Your task to perform on an android device: turn on showing notifications on the lock screen Image 0: 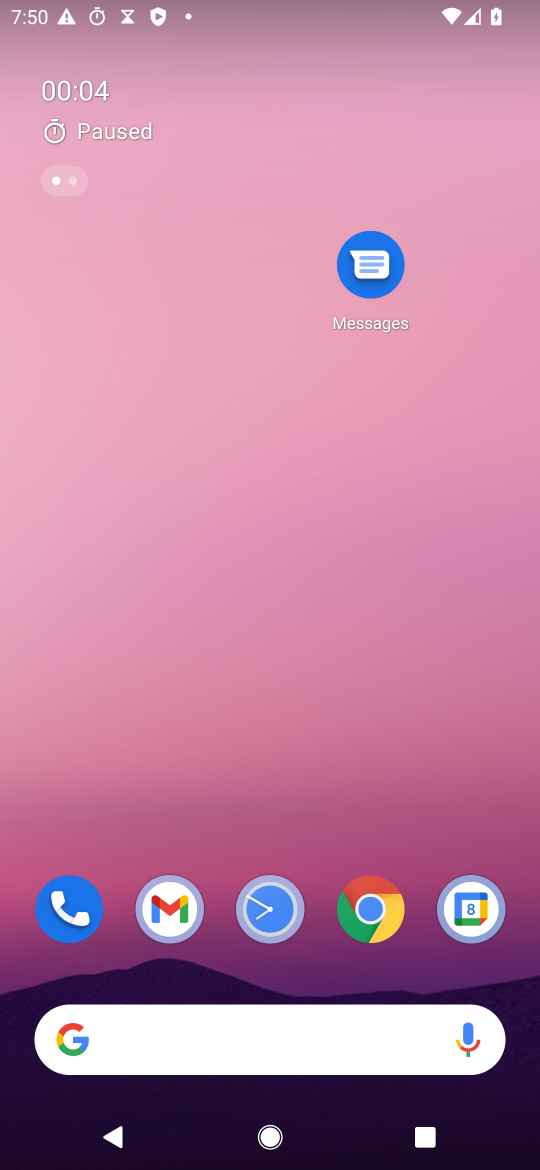
Step 0: press home button
Your task to perform on an android device: turn on showing notifications on the lock screen Image 1: 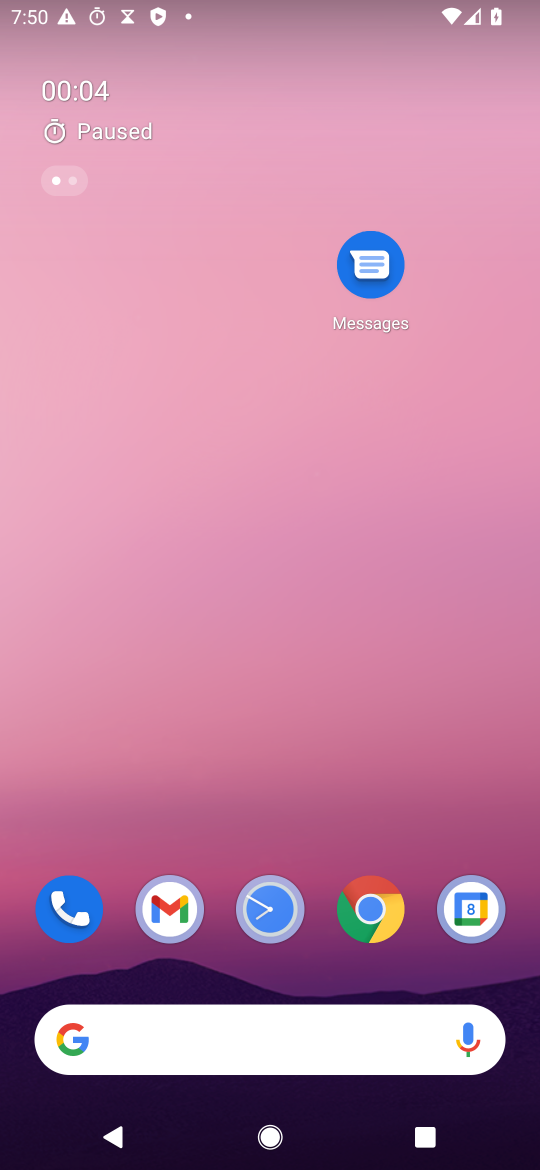
Step 1: drag from (225, 1040) to (343, 242)
Your task to perform on an android device: turn on showing notifications on the lock screen Image 2: 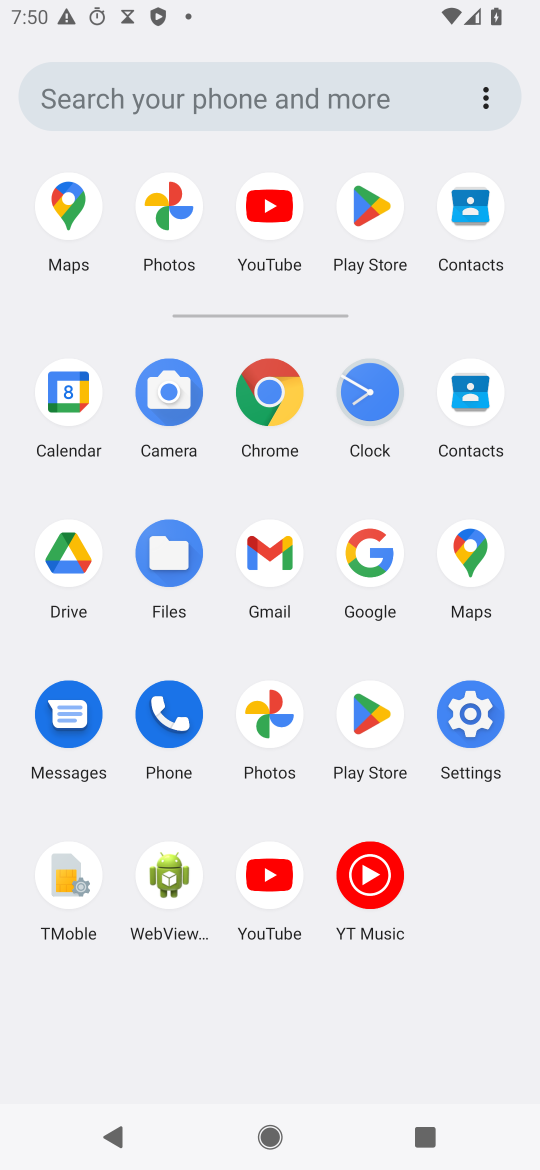
Step 2: click (476, 714)
Your task to perform on an android device: turn on showing notifications on the lock screen Image 3: 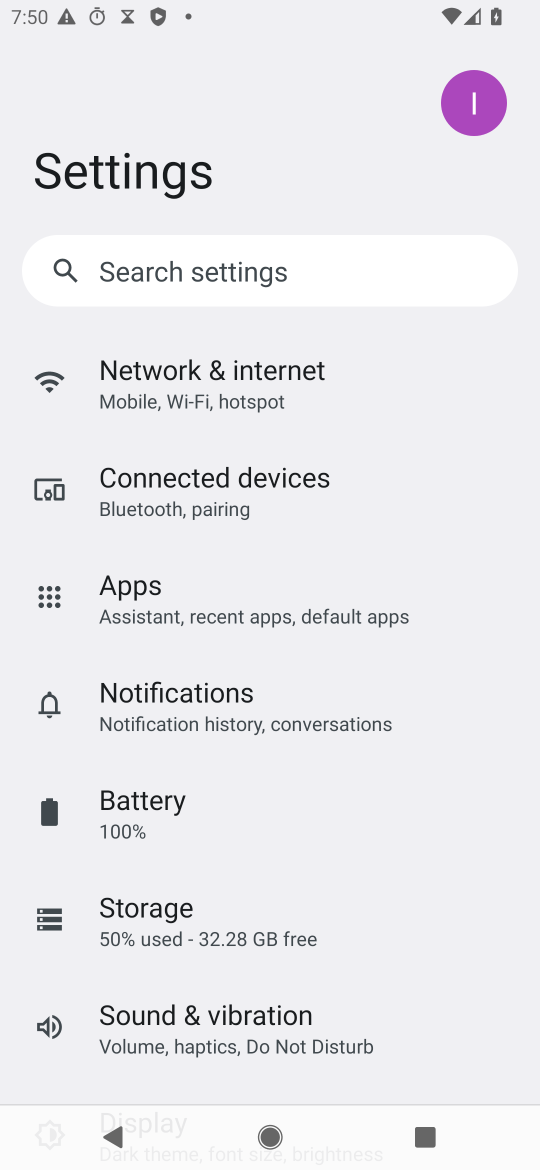
Step 3: click (228, 689)
Your task to perform on an android device: turn on showing notifications on the lock screen Image 4: 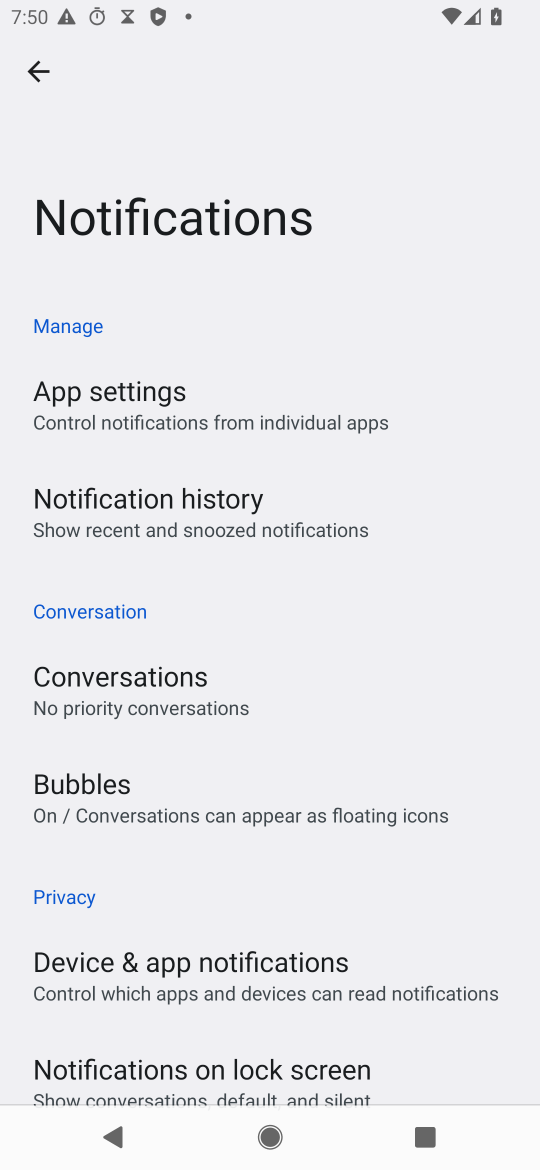
Step 4: drag from (315, 903) to (428, 492)
Your task to perform on an android device: turn on showing notifications on the lock screen Image 5: 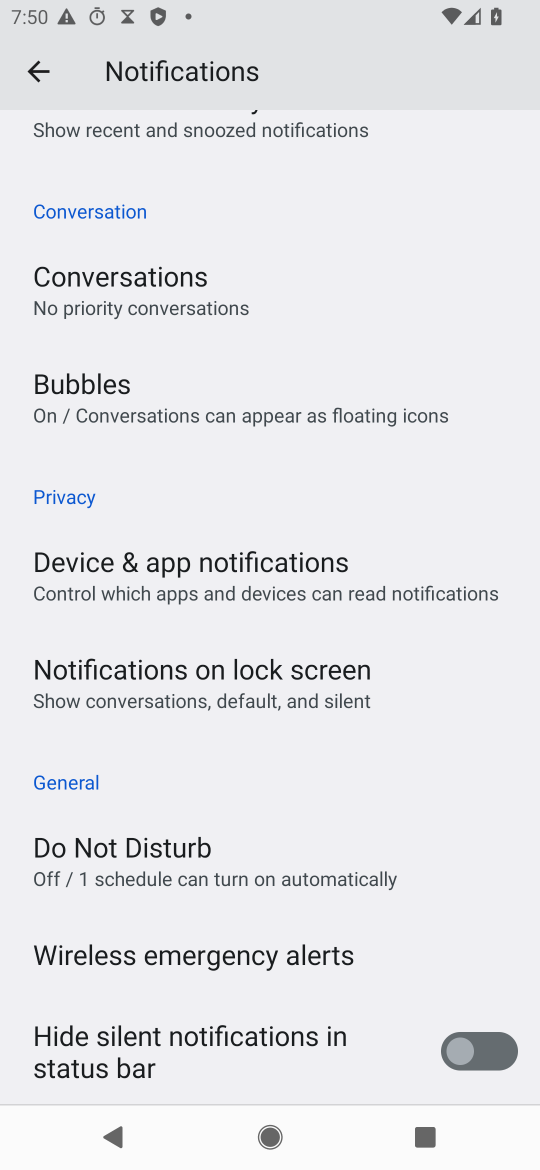
Step 5: click (207, 688)
Your task to perform on an android device: turn on showing notifications on the lock screen Image 6: 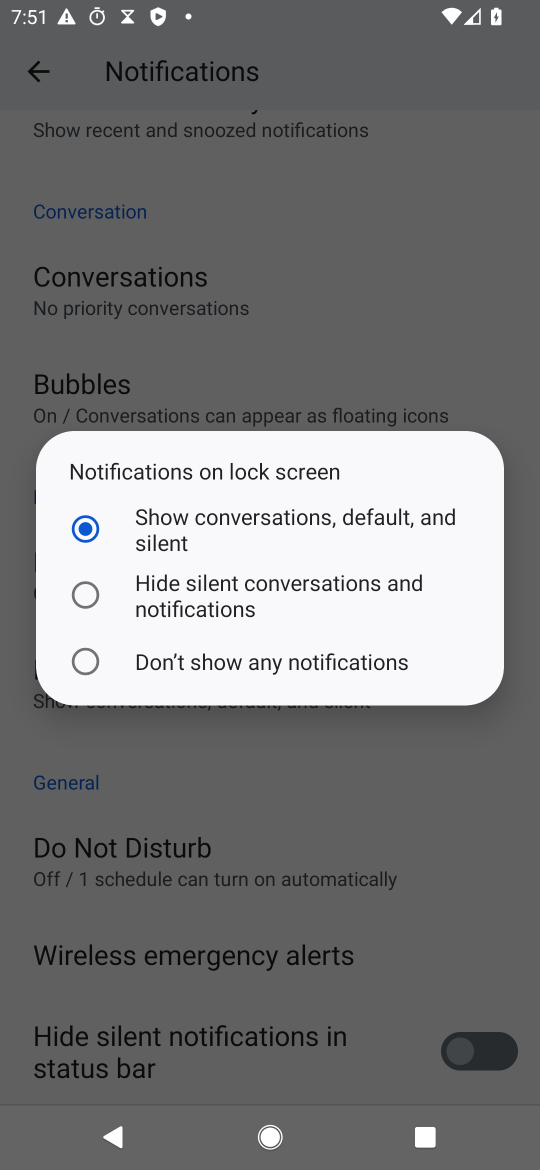
Step 6: task complete